Your task to perform on an android device: Search for sushi restaurants on Maps Image 0: 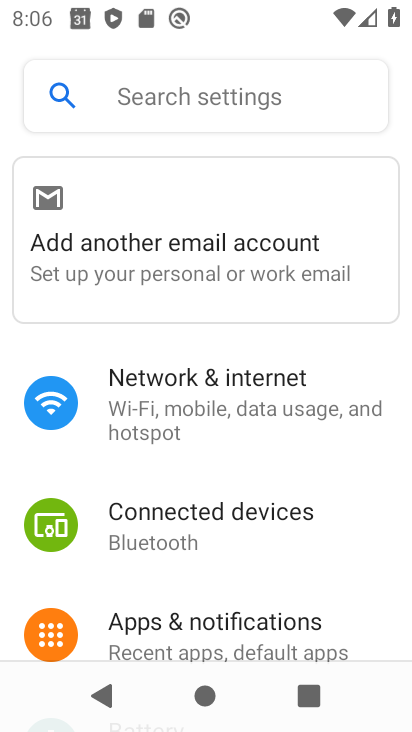
Step 0: click (286, 281)
Your task to perform on an android device: Search for sushi restaurants on Maps Image 1: 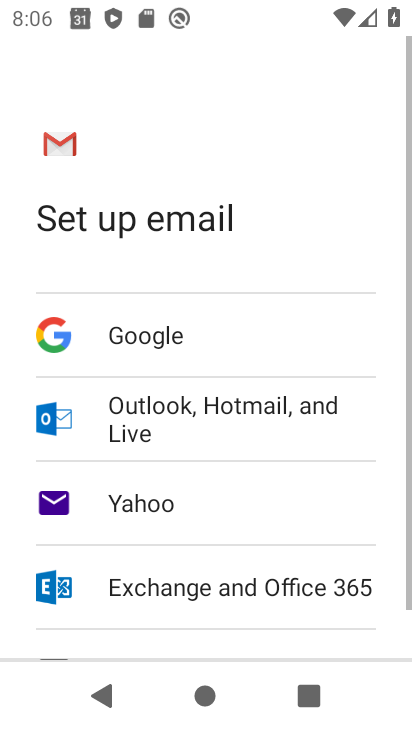
Step 1: drag from (203, 568) to (386, 520)
Your task to perform on an android device: Search for sushi restaurants on Maps Image 2: 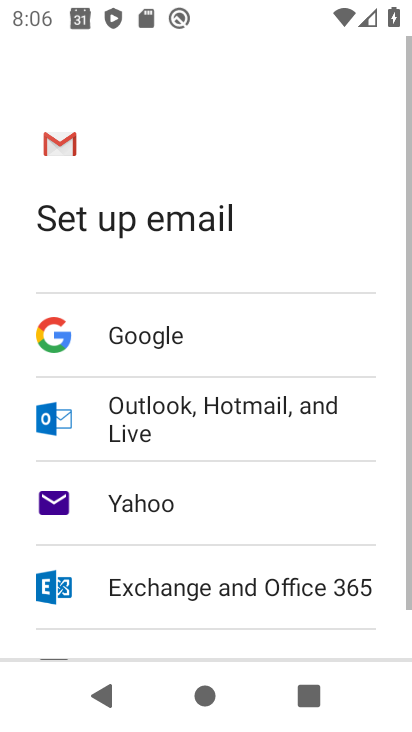
Step 2: press home button
Your task to perform on an android device: Search for sushi restaurants on Maps Image 3: 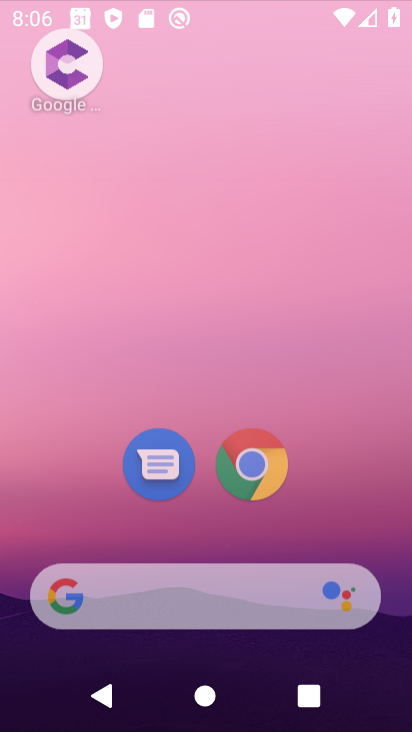
Step 3: drag from (243, 534) to (252, 211)
Your task to perform on an android device: Search for sushi restaurants on Maps Image 4: 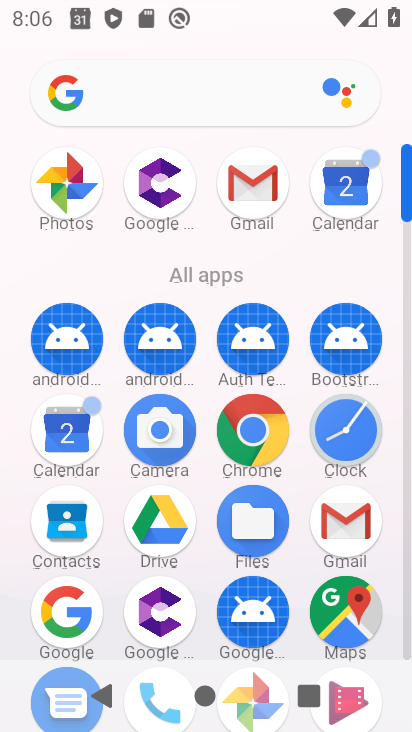
Step 4: click (335, 613)
Your task to perform on an android device: Search for sushi restaurants on Maps Image 5: 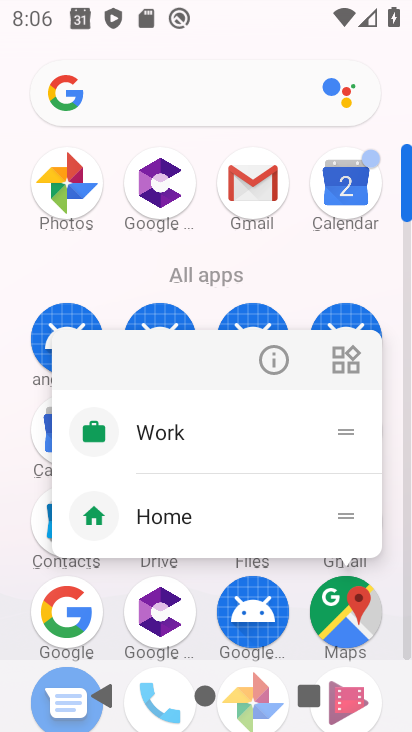
Step 5: click (275, 367)
Your task to perform on an android device: Search for sushi restaurants on Maps Image 6: 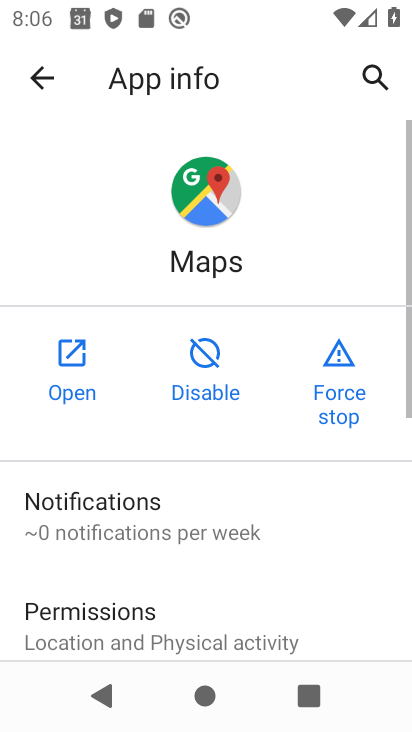
Step 6: click (69, 339)
Your task to perform on an android device: Search for sushi restaurants on Maps Image 7: 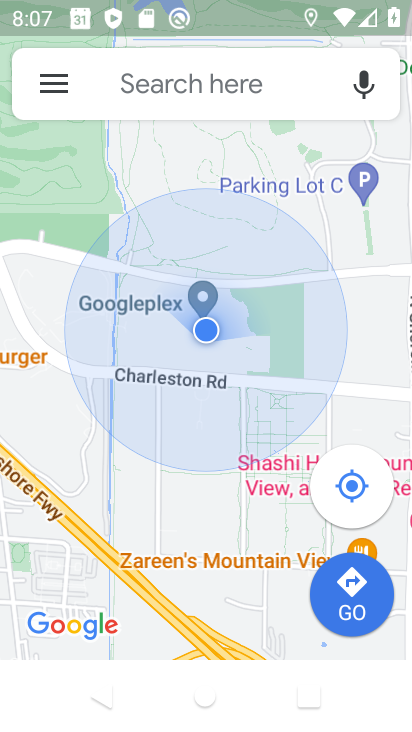
Step 7: click (177, 82)
Your task to perform on an android device: Search for sushi restaurants on Maps Image 8: 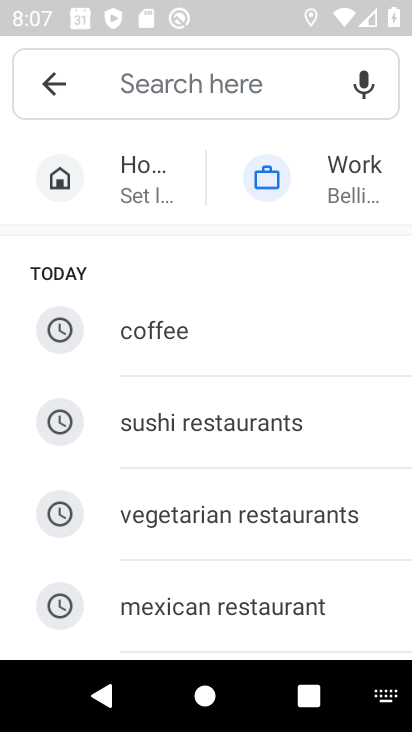
Step 8: click (155, 417)
Your task to perform on an android device: Search for sushi restaurants on Maps Image 9: 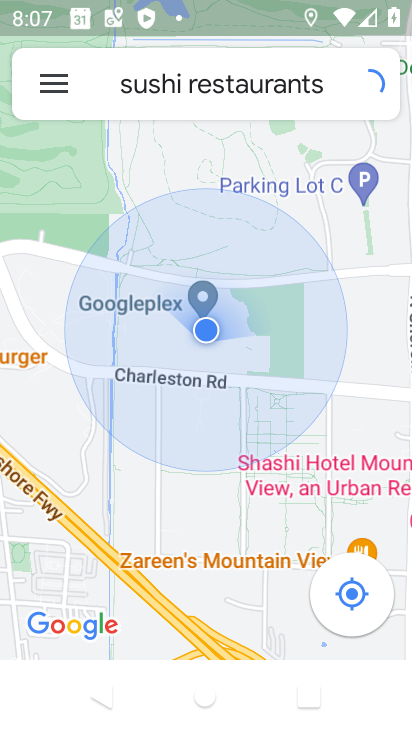
Step 9: task complete